Your task to perform on an android device: Toggle the flashlight Image 0: 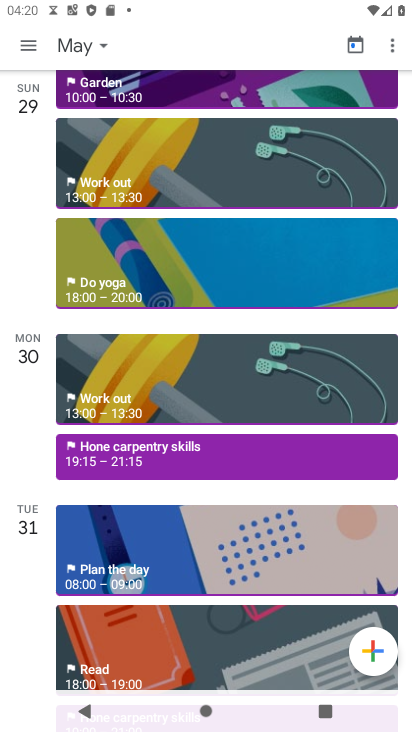
Step 0: press home button
Your task to perform on an android device: Toggle the flashlight Image 1: 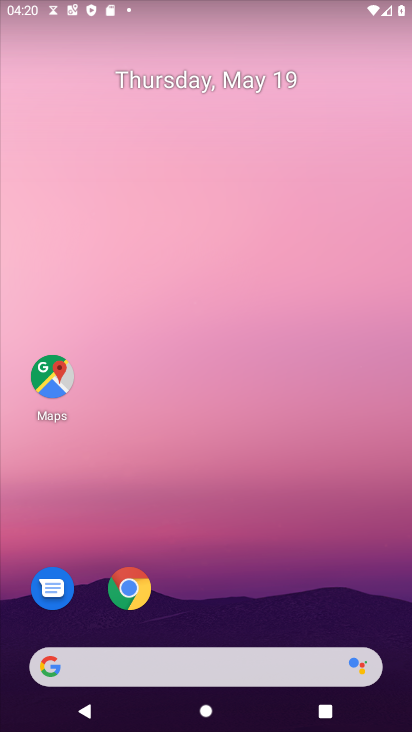
Step 1: drag from (235, 283) to (219, 0)
Your task to perform on an android device: Toggle the flashlight Image 2: 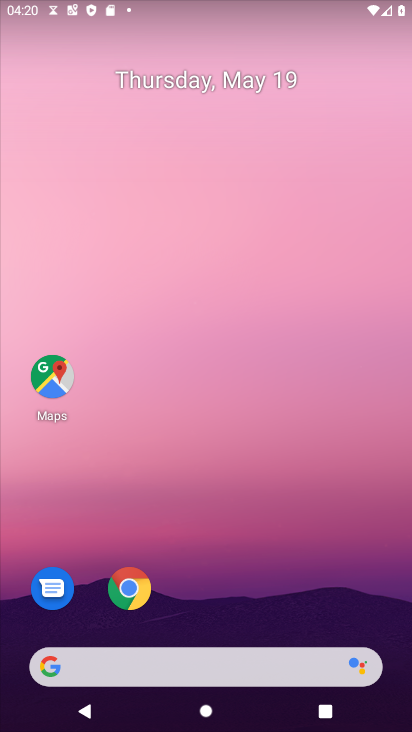
Step 2: drag from (233, 569) to (278, 7)
Your task to perform on an android device: Toggle the flashlight Image 3: 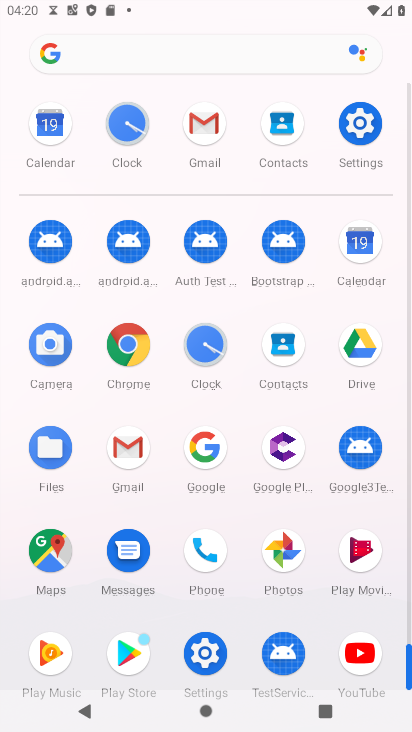
Step 3: click (366, 135)
Your task to perform on an android device: Toggle the flashlight Image 4: 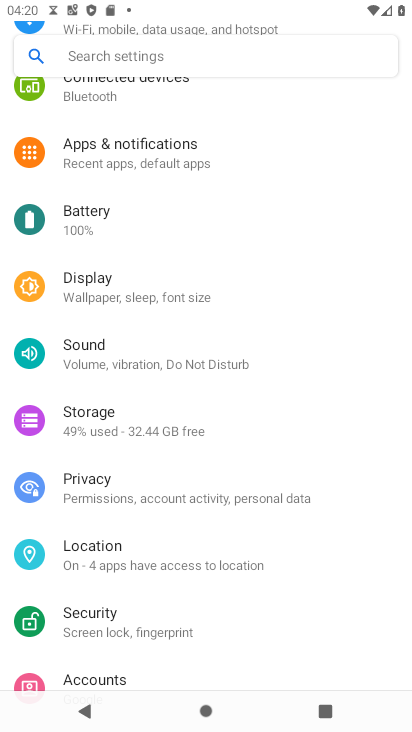
Step 4: click (179, 59)
Your task to perform on an android device: Toggle the flashlight Image 5: 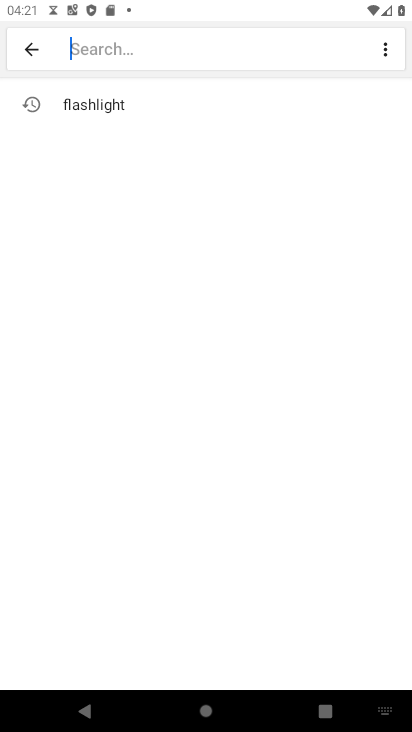
Step 5: type "flashlight"
Your task to perform on an android device: Toggle the flashlight Image 6: 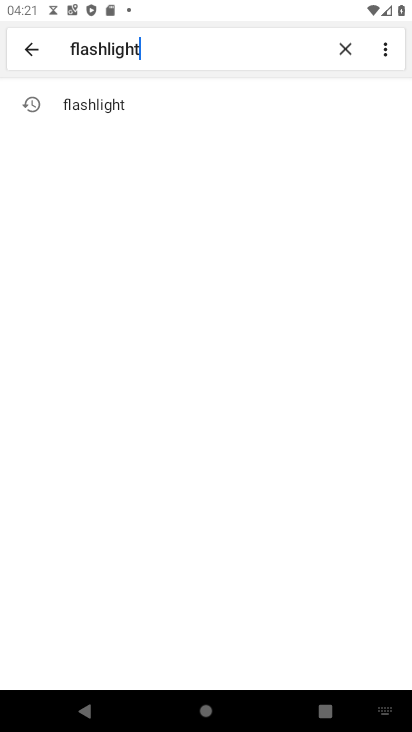
Step 6: click (97, 116)
Your task to perform on an android device: Toggle the flashlight Image 7: 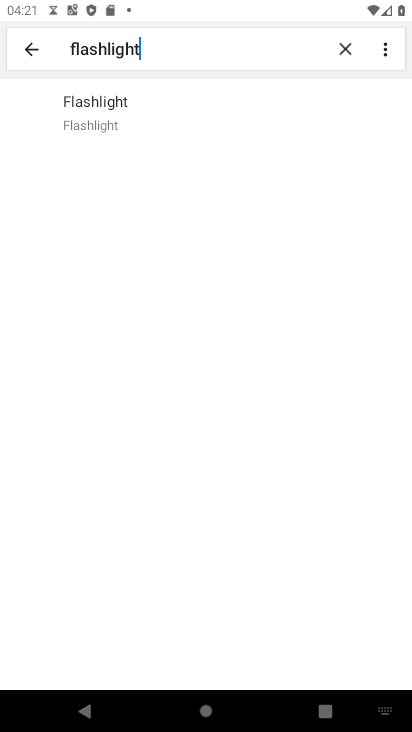
Step 7: click (92, 114)
Your task to perform on an android device: Toggle the flashlight Image 8: 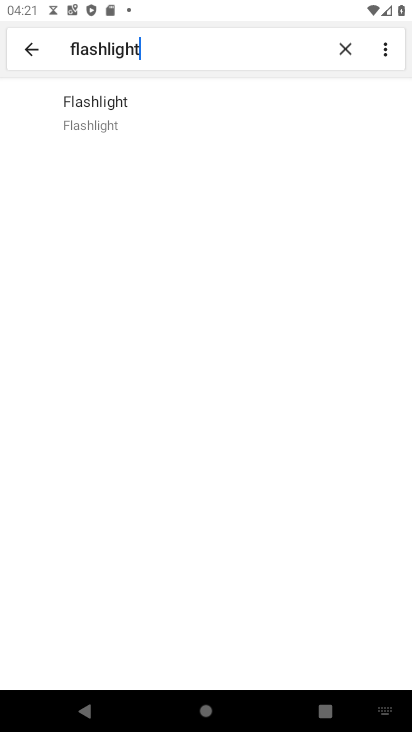
Step 8: click (92, 107)
Your task to perform on an android device: Toggle the flashlight Image 9: 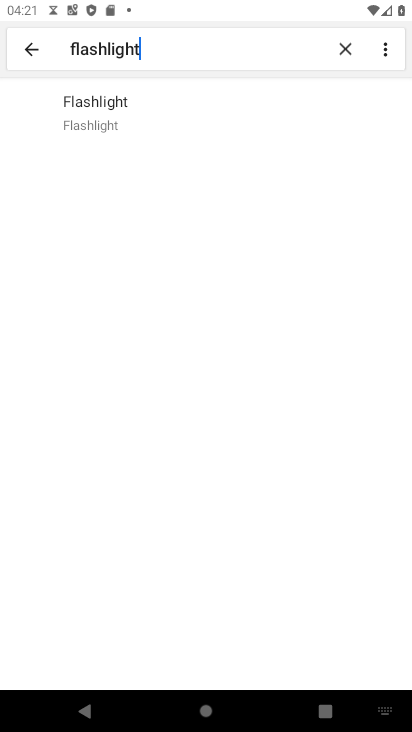
Step 9: task complete